Your task to perform on an android device: When is my next meeting? Image 0: 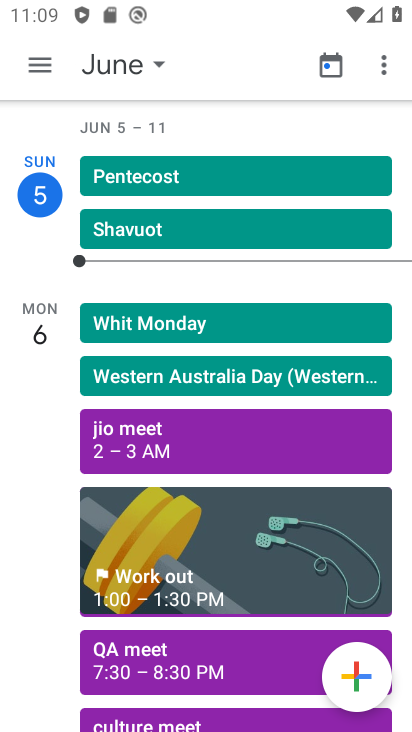
Step 0: task impossible